Your task to perform on an android device: change notifications settings Image 0: 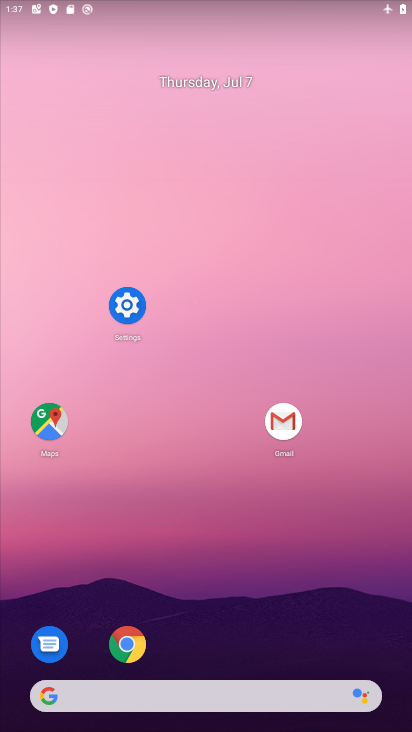
Step 0: click (117, 300)
Your task to perform on an android device: change notifications settings Image 1: 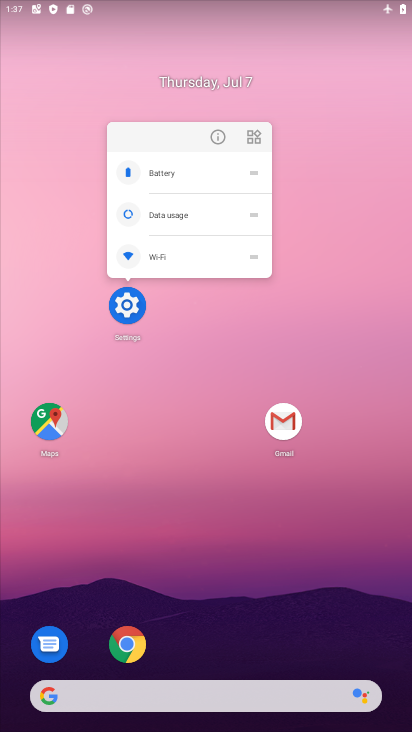
Step 1: click (115, 300)
Your task to perform on an android device: change notifications settings Image 2: 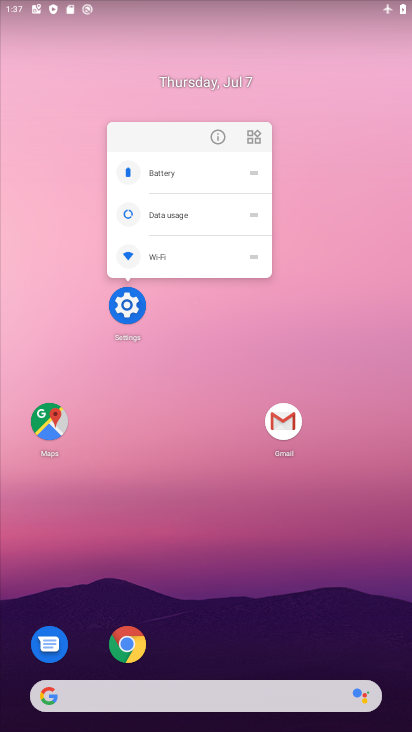
Step 2: click (115, 300)
Your task to perform on an android device: change notifications settings Image 3: 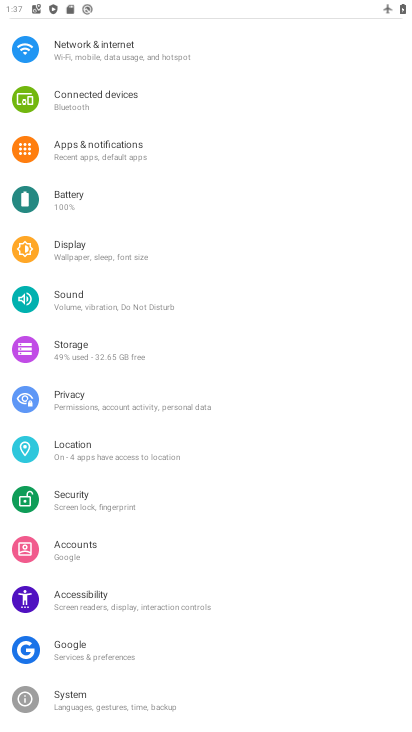
Step 3: click (66, 162)
Your task to perform on an android device: change notifications settings Image 4: 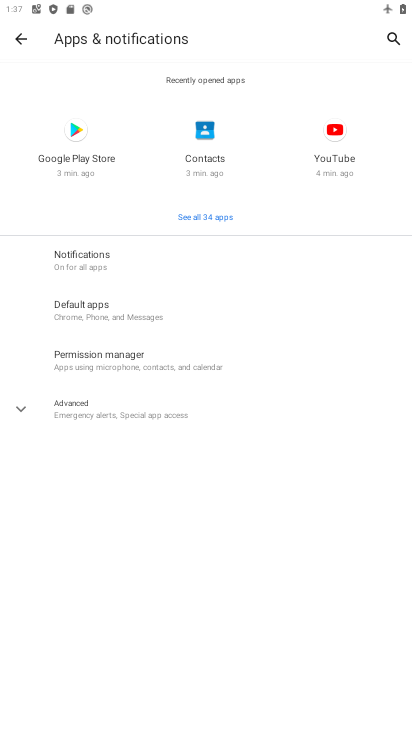
Step 4: click (85, 258)
Your task to perform on an android device: change notifications settings Image 5: 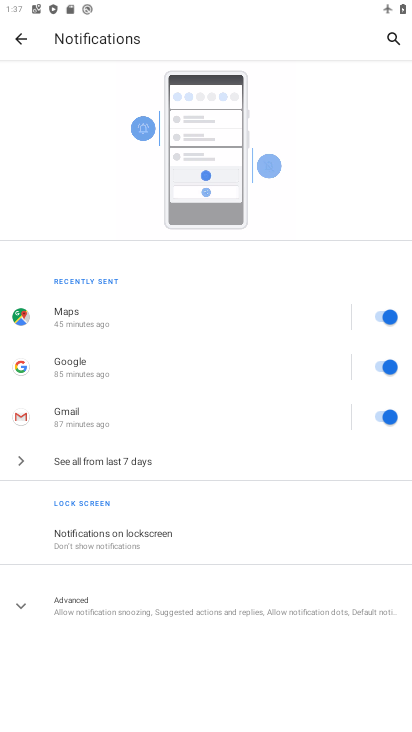
Step 5: click (33, 606)
Your task to perform on an android device: change notifications settings Image 6: 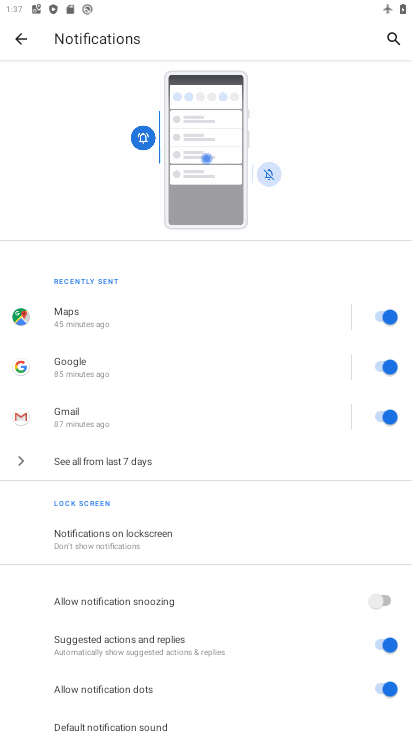
Step 6: task complete